Your task to perform on an android device: Search for vegetarian restaurants on Maps Image 0: 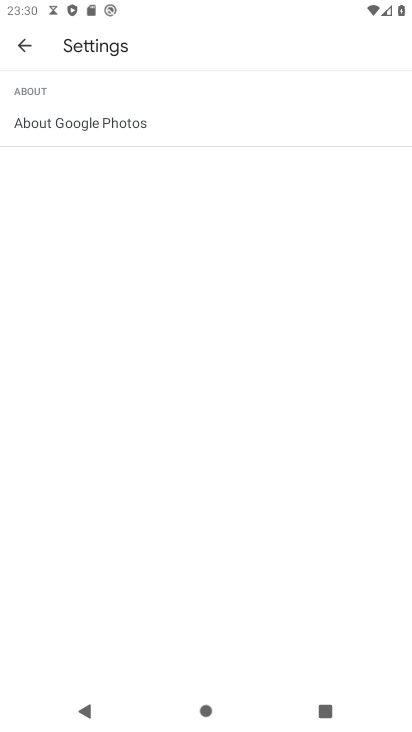
Step 0: press home button
Your task to perform on an android device: Search for vegetarian restaurants on Maps Image 1: 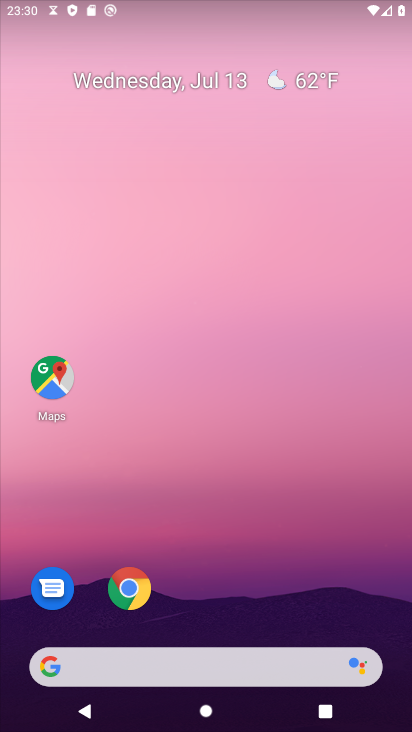
Step 1: drag from (186, 621) to (168, 220)
Your task to perform on an android device: Search for vegetarian restaurants on Maps Image 2: 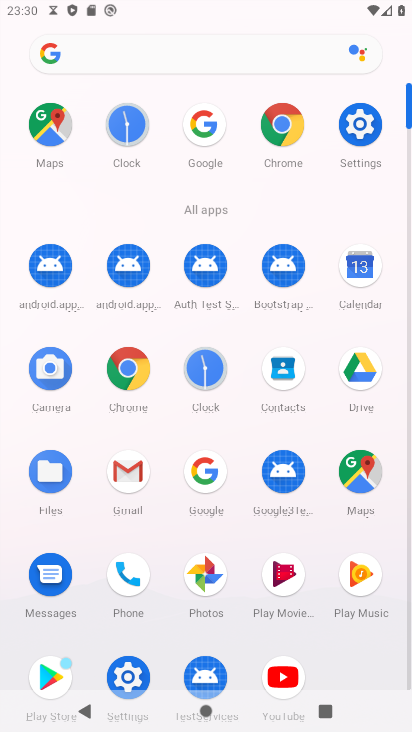
Step 2: click (374, 466)
Your task to perform on an android device: Search for vegetarian restaurants on Maps Image 3: 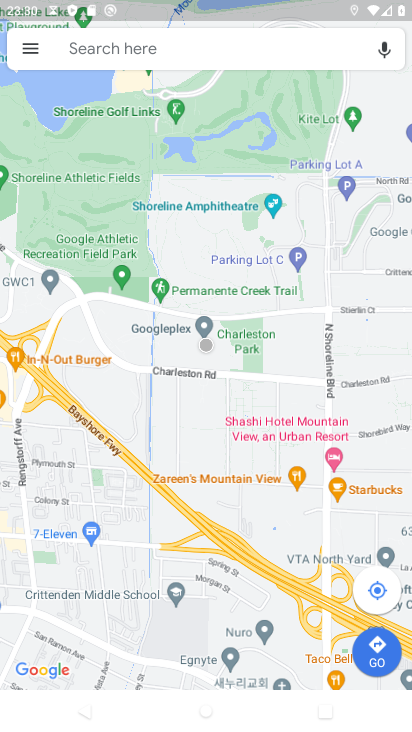
Step 3: click (81, 52)
Your task to perform on an android device: Search for vegetarian restaurants on Maps Image 4: 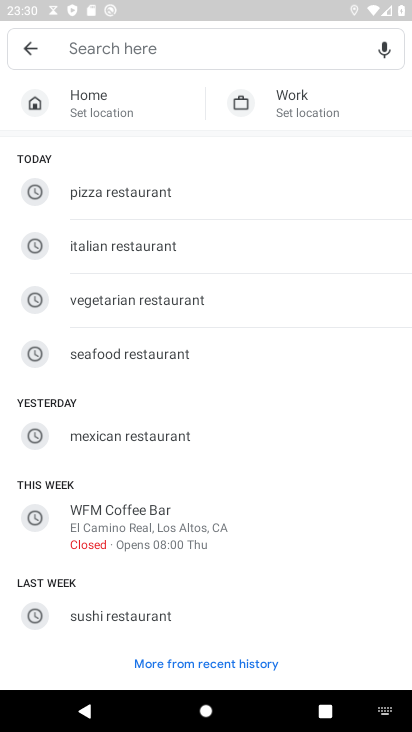
Step 4: click (113, 297)
Your task to perform on an android device: Search for vegetarian restaurants on Maps Image 5: 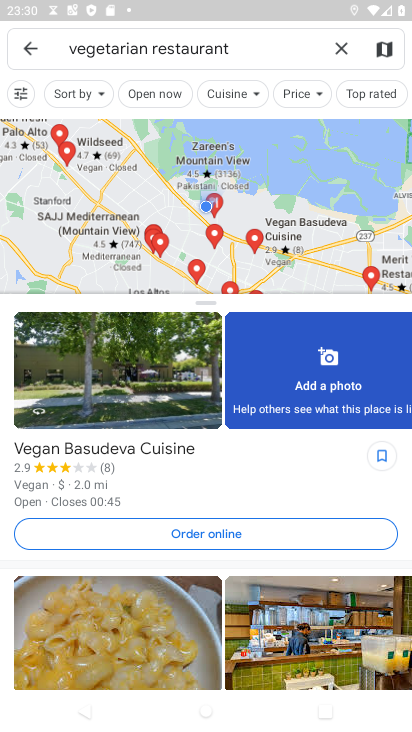
Step 5: task complete